Your task to perform on an android device: What's the weather today? Image 0: 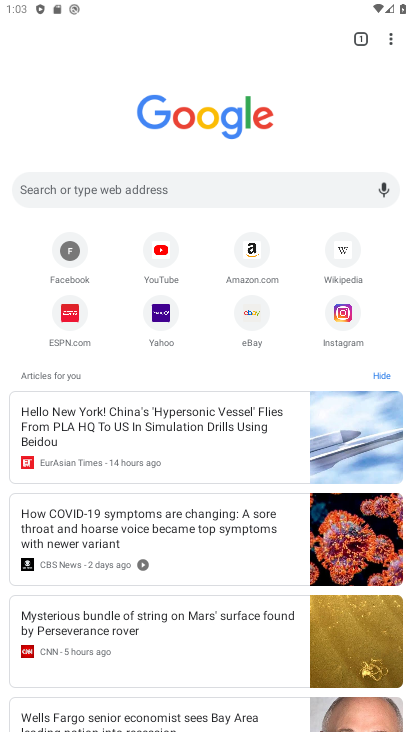
Step 0: press home button
Your task to perform on an android device: What's the weather today? Image 1: 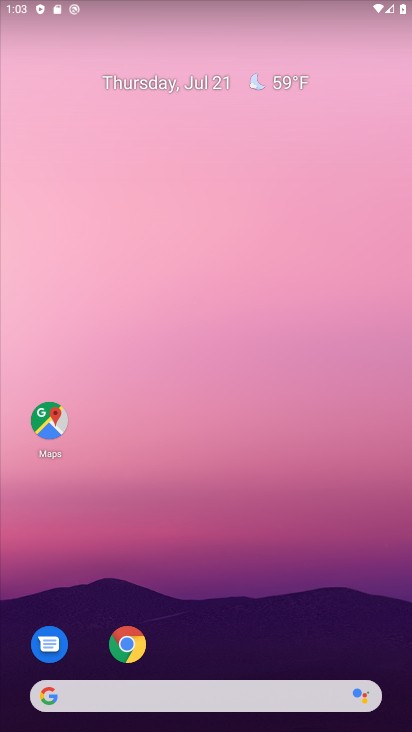
Step 1: drag from (228, 687) to (243, 174)
Your task to perform on an android device: What's the weather today? Image 2: 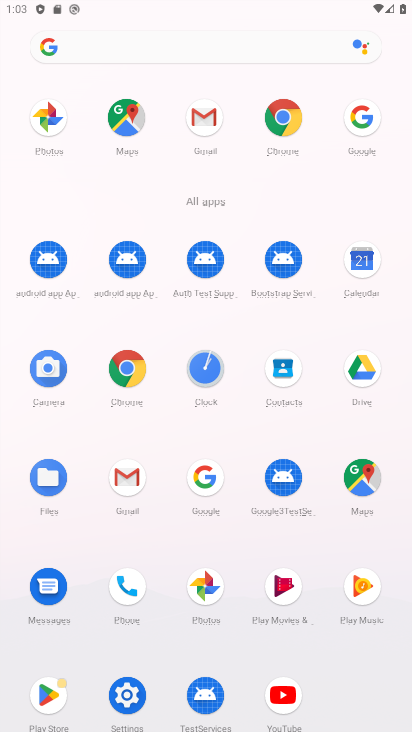
Step 2: click (203, 475)
Your task to perform on an android device: What's the weather today? Image 3: 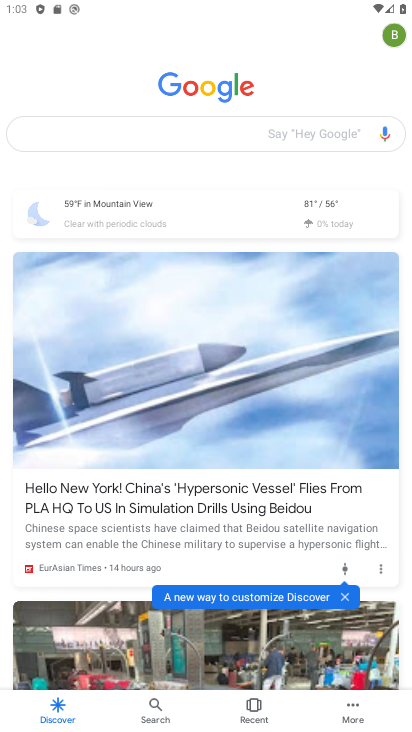
Step 3: click (144, 216)
Your task to perform on an android device: What's the weather today? Image 4: 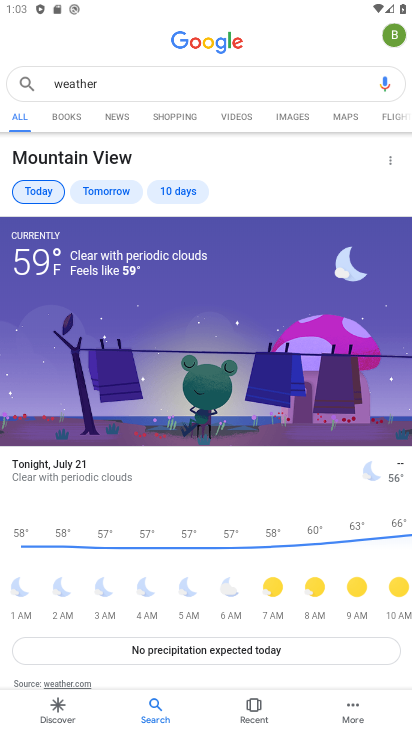
Step 4: task complete